Your task to perform on an android device: Go to Yahoo.com Image 0: 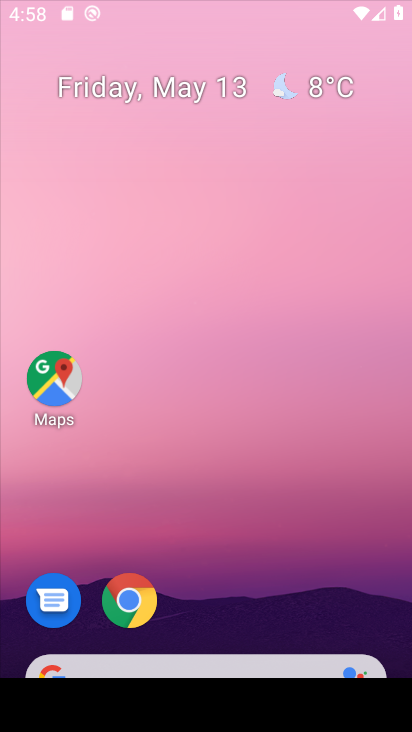
Step 0: click (310, 134)
Your task to perform on an android device: Go to Yahoo.com Image 1: 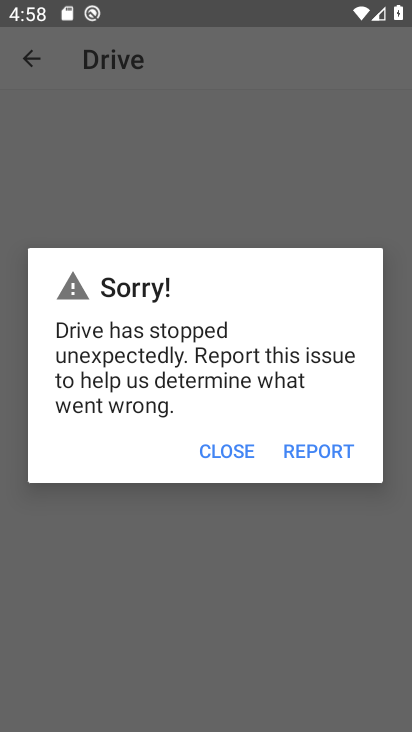
Step 1: press home button
Your task to perform on an android device: Go to Yahoo.com Image 2: 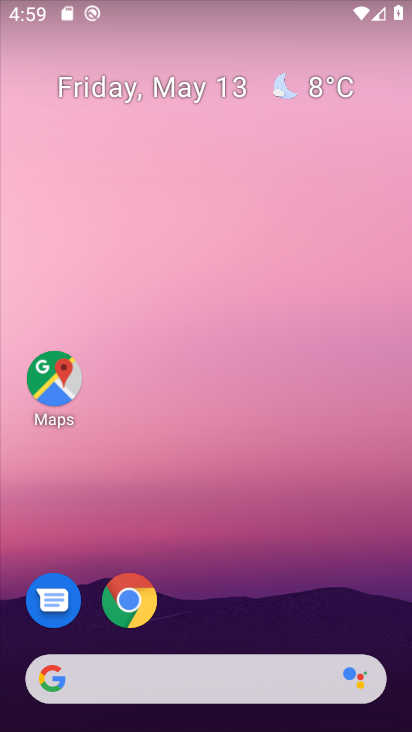
Step 2: click (137, 616)
Your task to perform on an android device: Go to Yahoo.com Image 3: 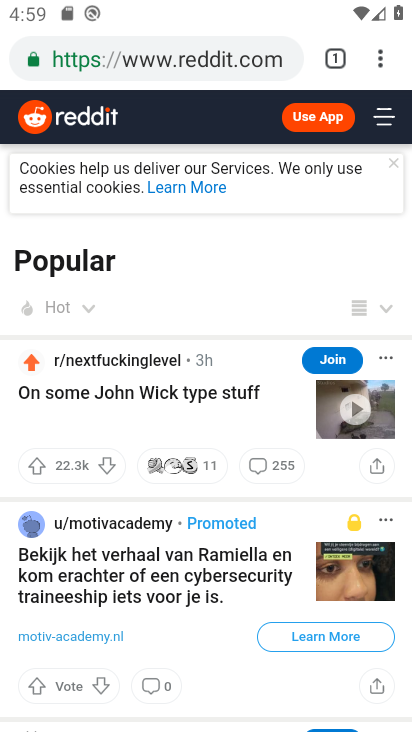
Step 3: click (284, 56)
Your task to perform on an android device: Go to Yahoo.com Image 4: 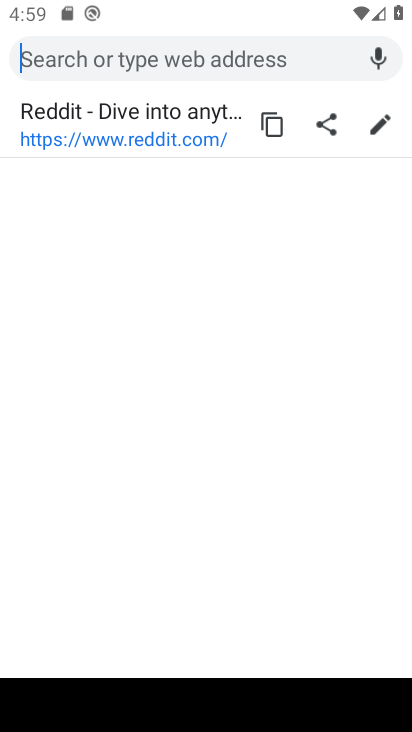
Step 4: type "yahoo.com"
Your task to perform on an android device: Go to Yahoo.com Image 5: 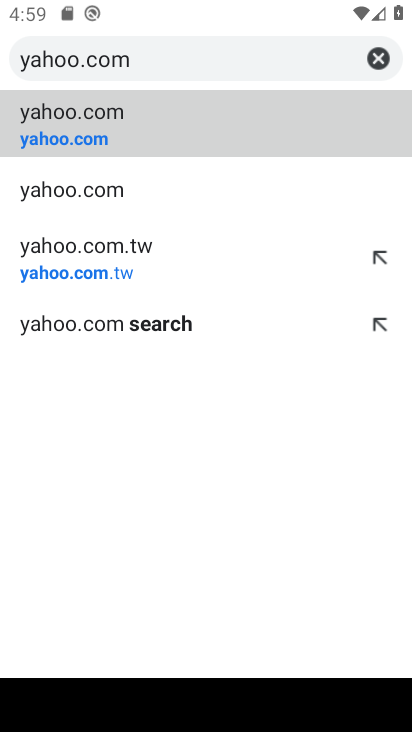
Step 5: click (112, 112)
Your task to perform on an android device: Go to Yahoo.com Image 6: 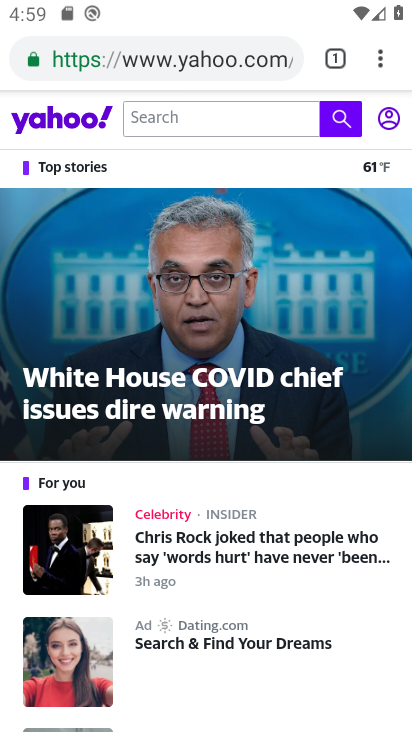
Step 6: task complete